Your task to perform on an android device: Go to Wikipedia Image 0: 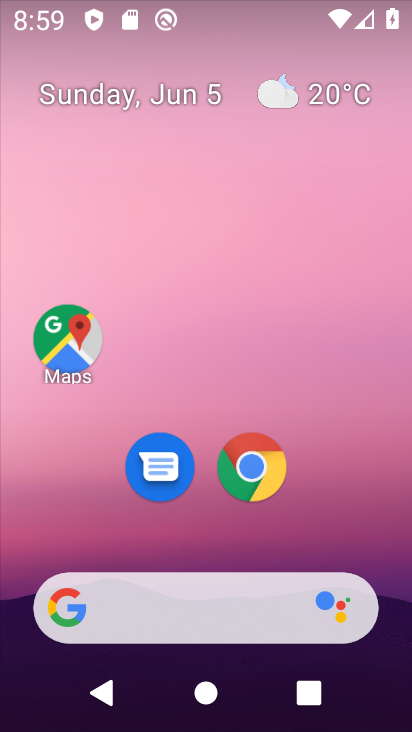
Step 0: click (248, 460)
Your task to perform on an android device: Go to Wikipedia Image 1: 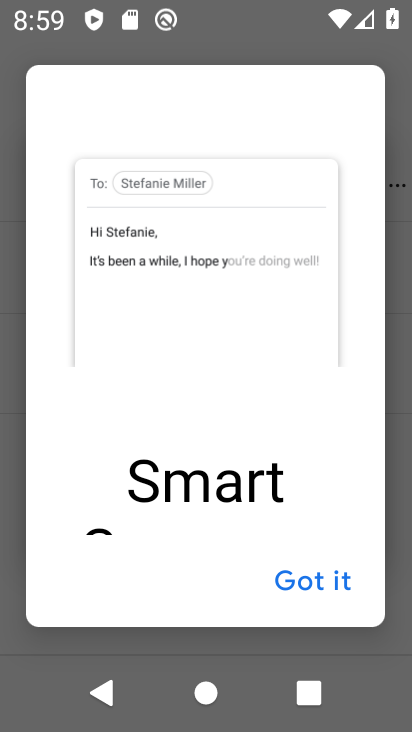
Step 1: press back button
Your task to perform on an android device: Go to Wikipedia Image 2: 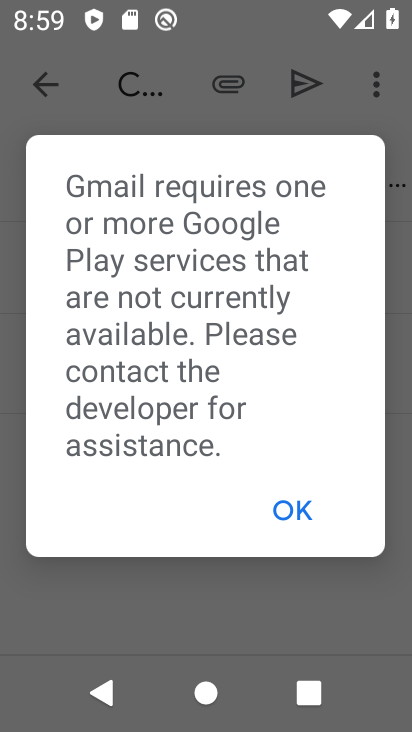
Step 2: press home button
Your task to perform on an android device: Go to Wikipedia Image 3: 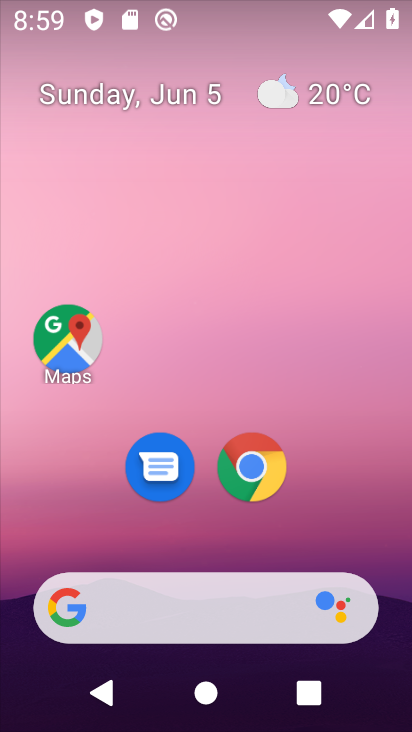
Step 3: click (251, 477)
Your task to perform on an android device: Go to Wikipedia Image 4: 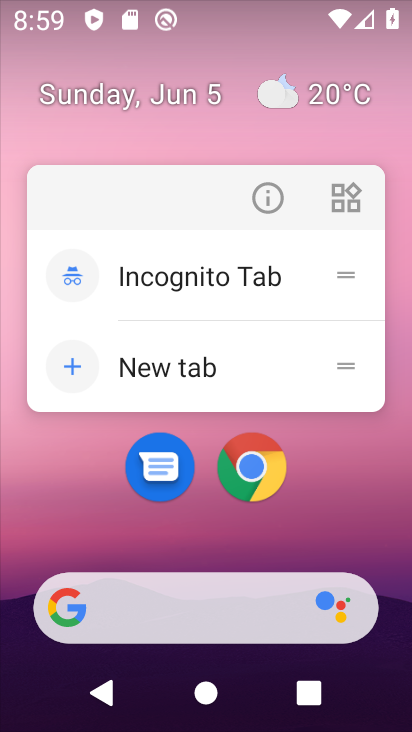
Step 4: click (246, 461)
Your task to perform on an android device: Go to Wikipedia Image 5: 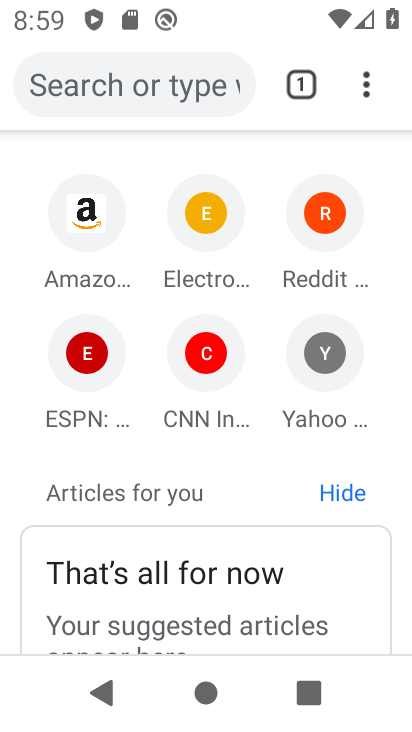
Step 5: click (136, 95)
Your task to perform on an android device: Go to Wikipedia Image 6: 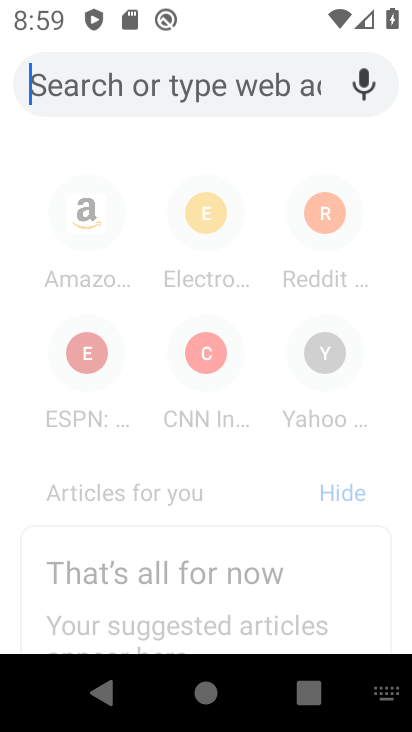
Step 6: type "wikipedia"
Your task to perform on an android device: Go to Wikipedia Image 7: 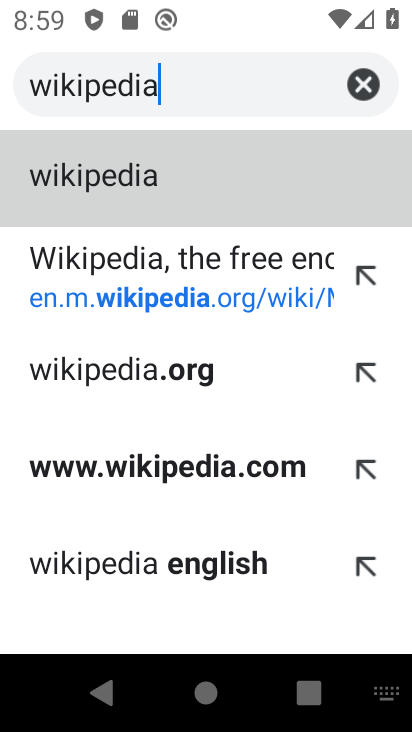
Step 7: click (107, 241)
Your task to perform on an android device: Go to Wikipedia Image 8: 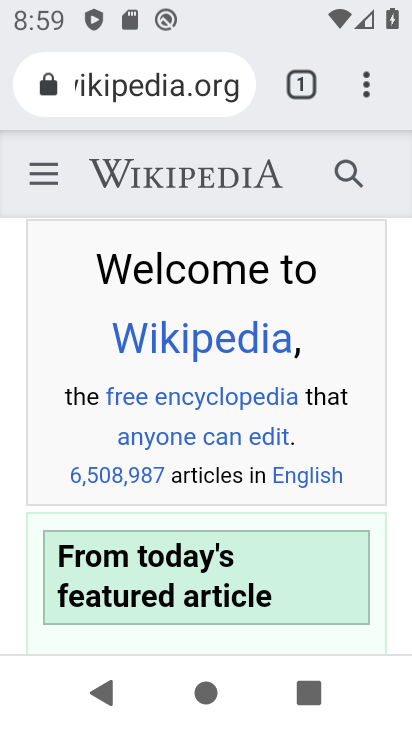
Step 8: task complete